Your task to perform on an android device: Open network settings Image 0: 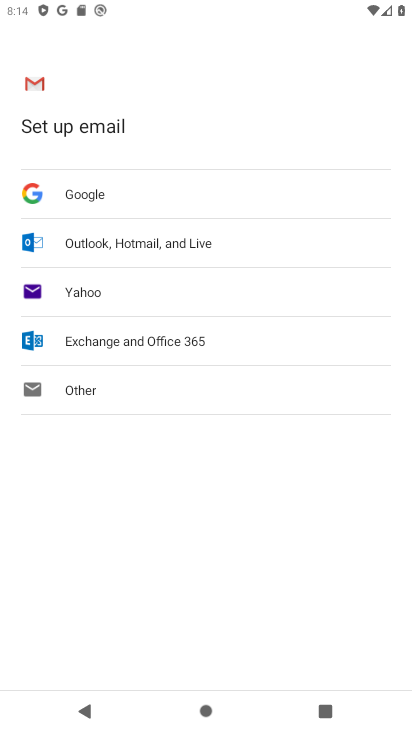
Step 0: click (246, 628)
Your task to perform on an android device: Open network settings Image 1: 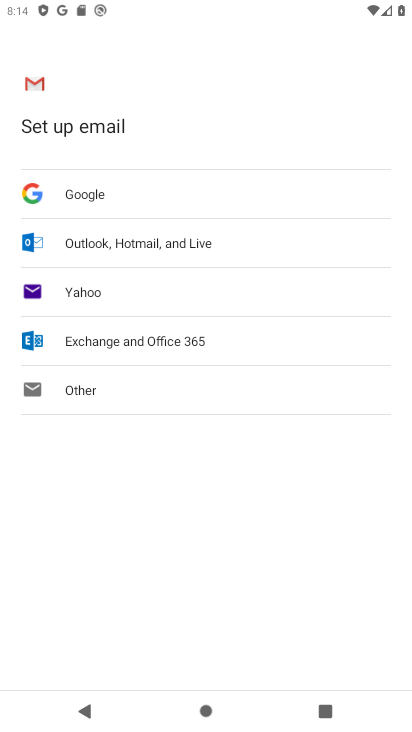
Step 1: press home button
Your task to perform on an android device: Open network settings Image 2: 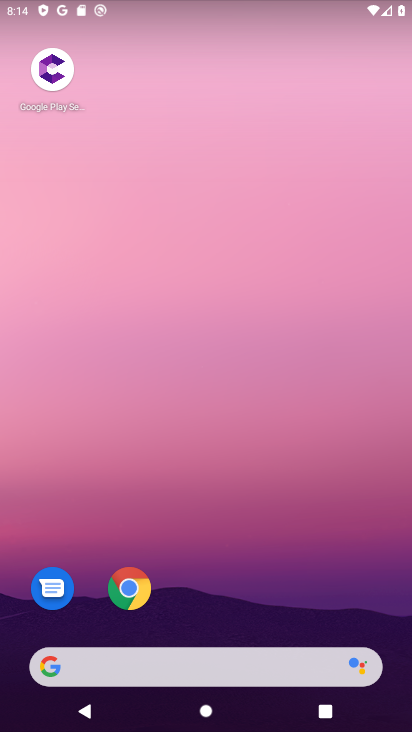
Step 2: drag from (234, 617) to (144, 203)
Your task to perform on an android device: Open network settings Image 3: 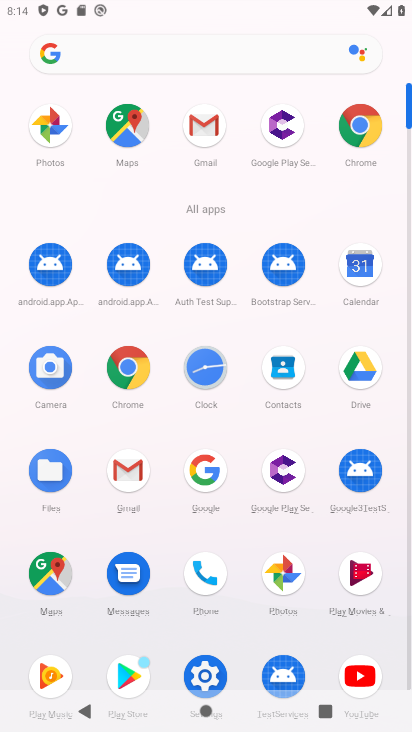
Step 3: click (204, 674)
Your task to perform on an android device: Open network settings Image 4: 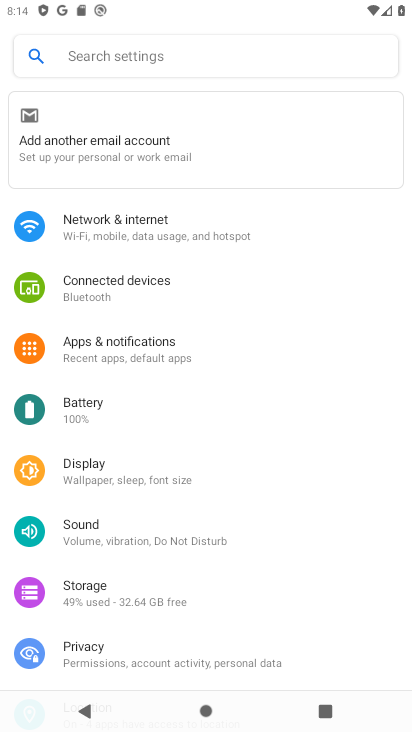
Step 4: click (199, 221)
Your task to perform on an android device: Open network settings Image 5: 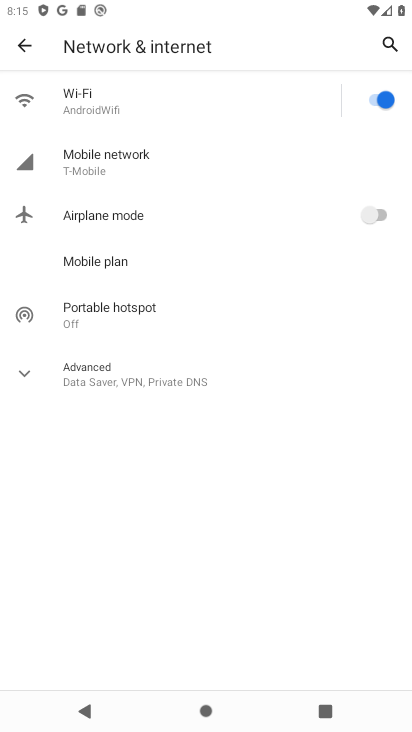
Step 5: task complete